Your task to perform on an android device: make emails show in primary in the gmail app Image 0: 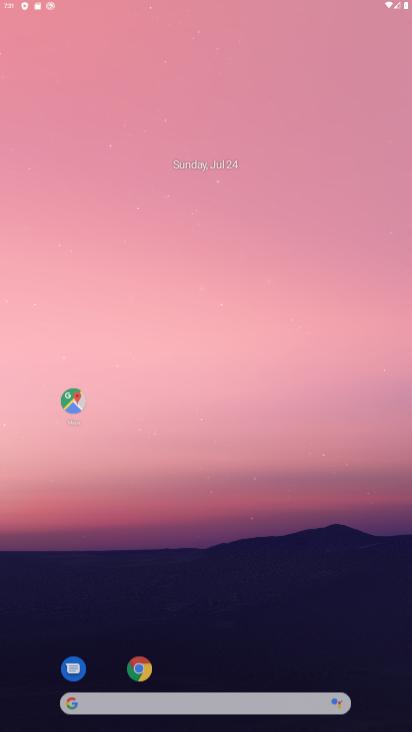
Step 0: click (286, 34)
Your task to perform on an android device: make emails show in primary in the gmail app Image 1: 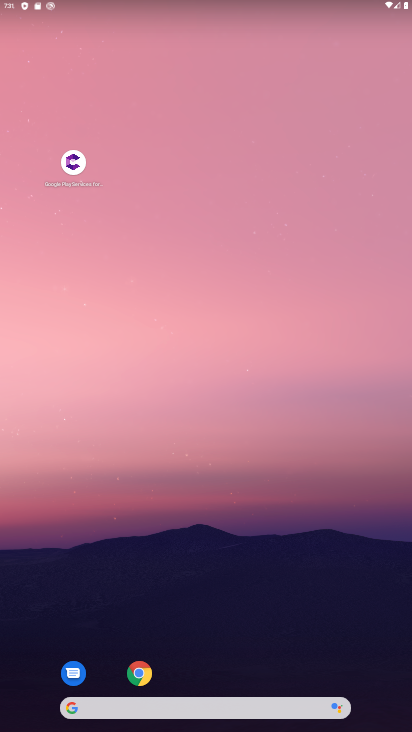
Step 1: drag from (204, 687) to (312, 21)
Your task to perform on an android device: make emails show in primary in the gmail app Image 2: 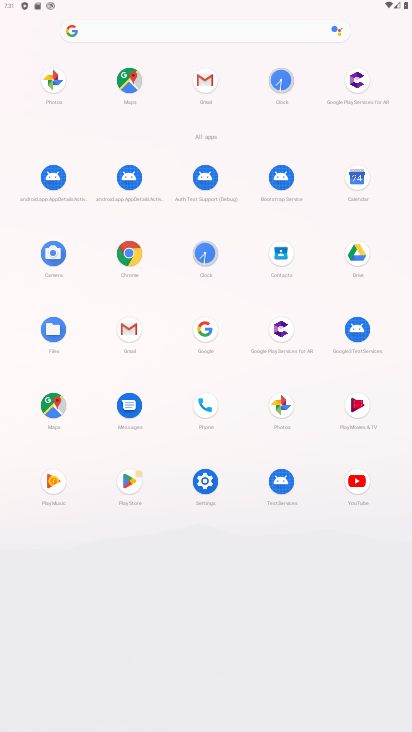
Step 2: click (131, 325)
Your task to perform on an android device: make emails show in primary in the gmail app Image 3: 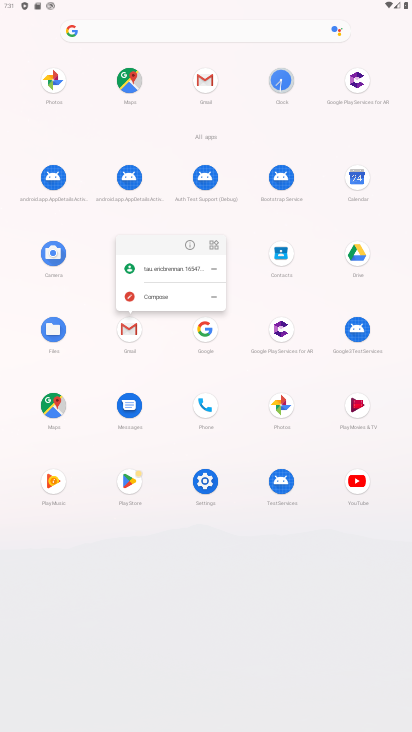
Step 3: click (187, 238)
Your task to perform on an android device: make emails show in primary in the gmail app Image 4: 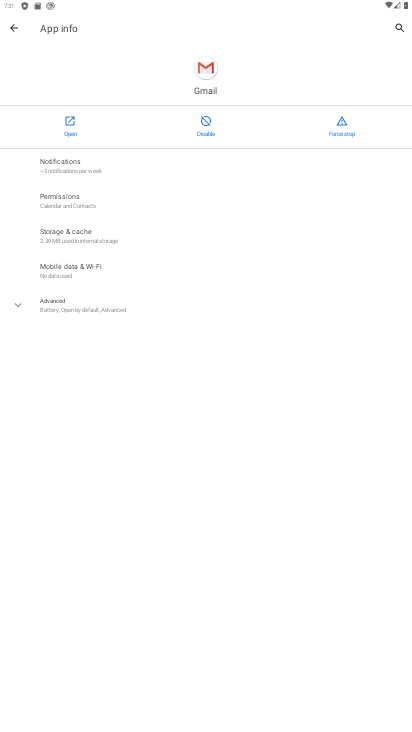
Step 4: click (69, 116)
Your task to perform on an android device: make emails show in primary in the gmail app Image 5: 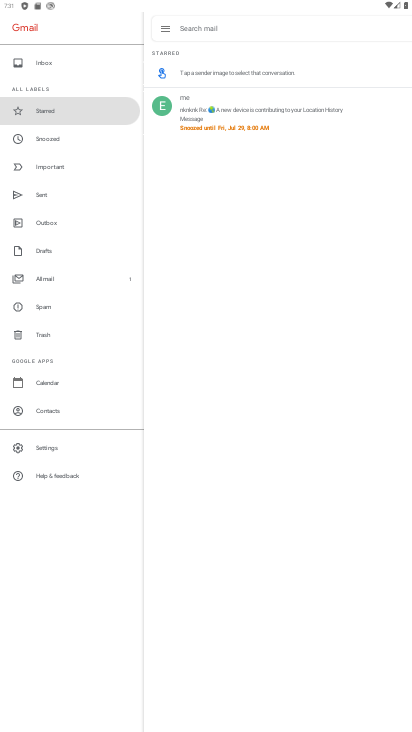
Step 5: click (70, 63)
Your task to perform on an android device: make emails show in primary in the gmail app Image 6: 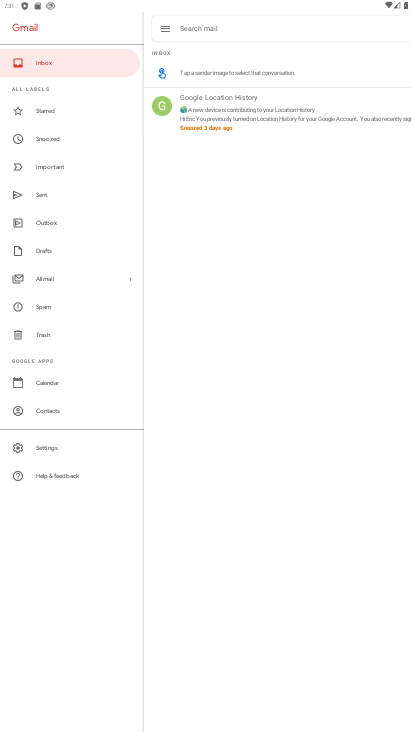
Step 6: task complete